Your task to perform on an android device: Open the map Image 0: 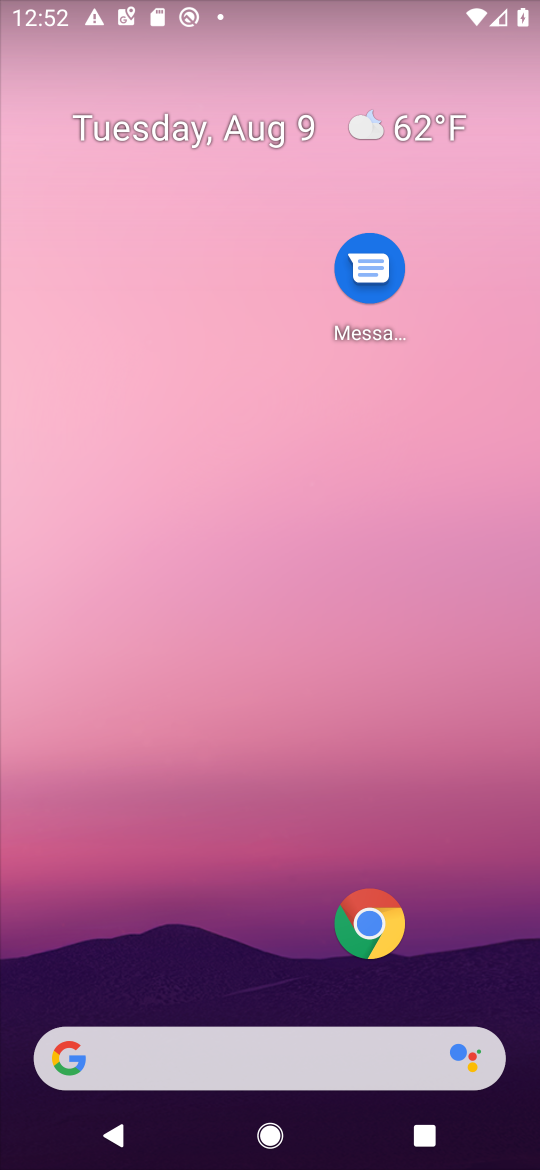
Step 0: drag from (45, 1110) to (196, 235)
Your task to perform on an android device: Open the map Image 1: 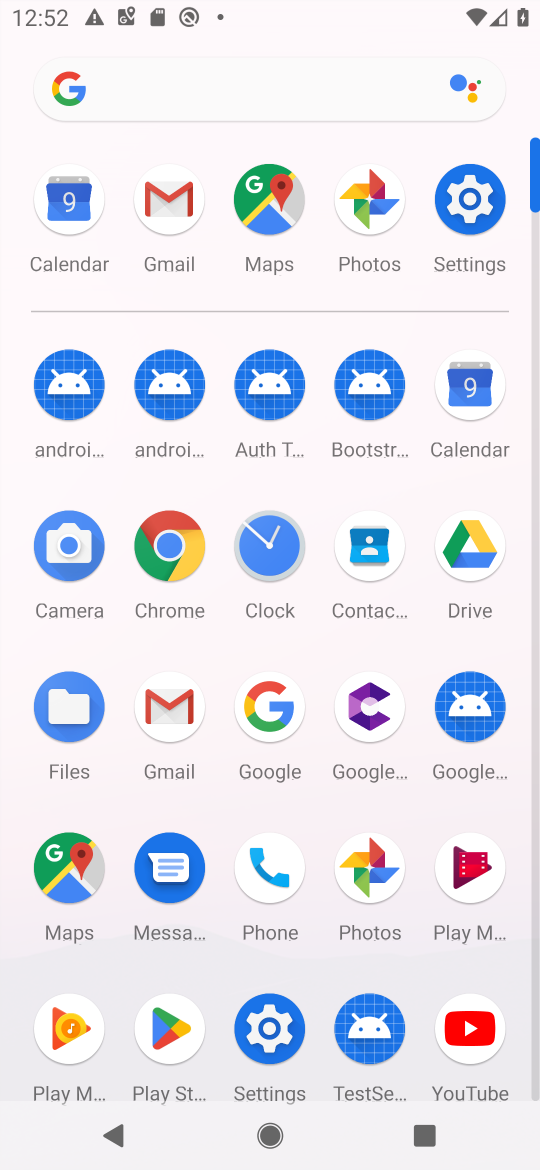
Step 1: click (48, 879)
Your task to perform on an android device: Open the map Image 2: 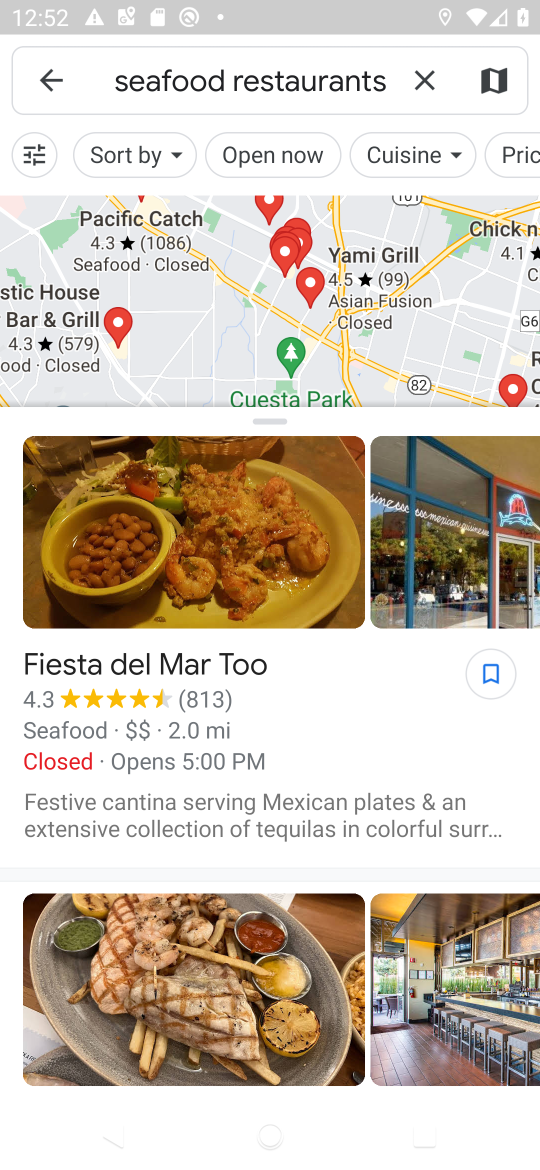
Step 2: click (44, 68)
Your task to perform on an android device: Open the map Image 3: 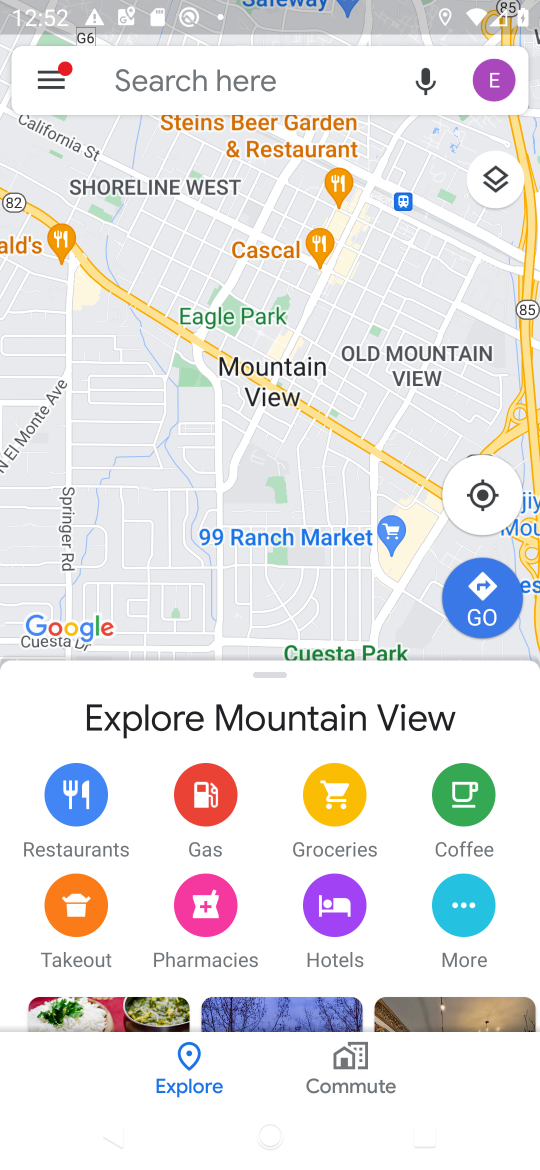
Step 3: task complete